Your task to perform on an android device: turn off notifications settings in the gmail app Image 0: 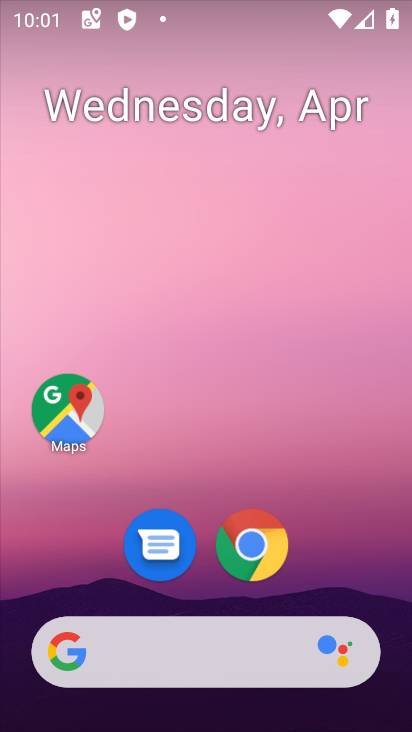
Step 0: drag from (396, 557) to (383, 0)
Your task to perform on an android device: turn off notifications settings in the gmail app Image 1: 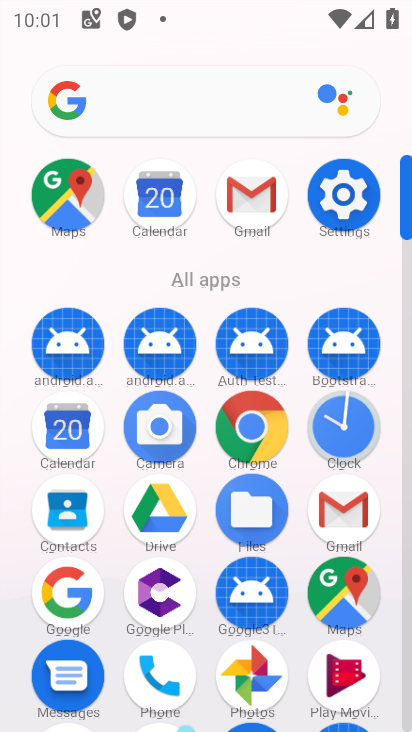
Step 1: click (248, 203)
Your task to perform on an android device: turn off notifications settings in the gmail app Image 2: 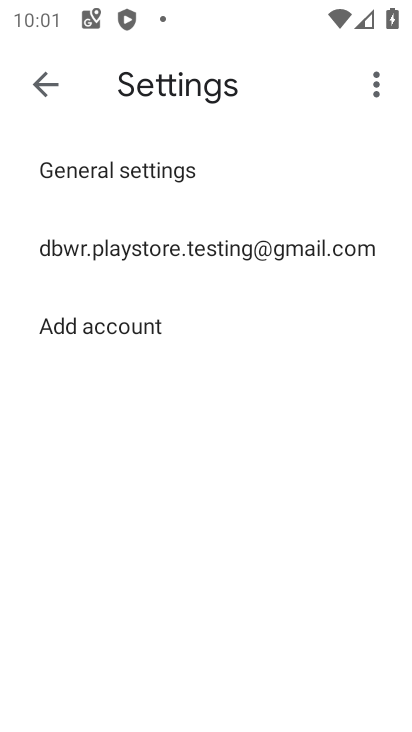
Step 2: click (98, 175)
Your task to perform on an android device: turn off notifications settings in the gmail app Image 3: 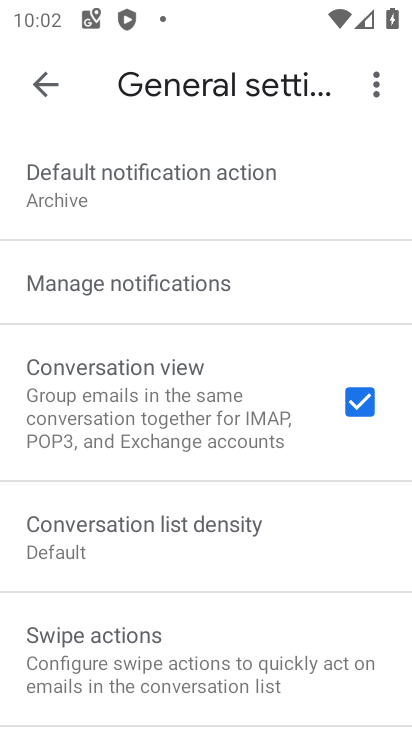
Step 3: click (113, 289)
Your task to perform on an android device: turn off notifications settings in the gmail app Image 4: 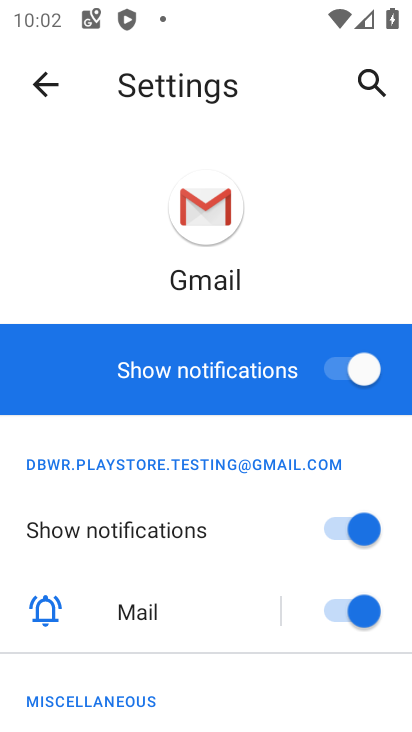
Step 4: click (359, 378)
Your task to perform on an android device: turn off notifications settings in the gmail app Image 5: 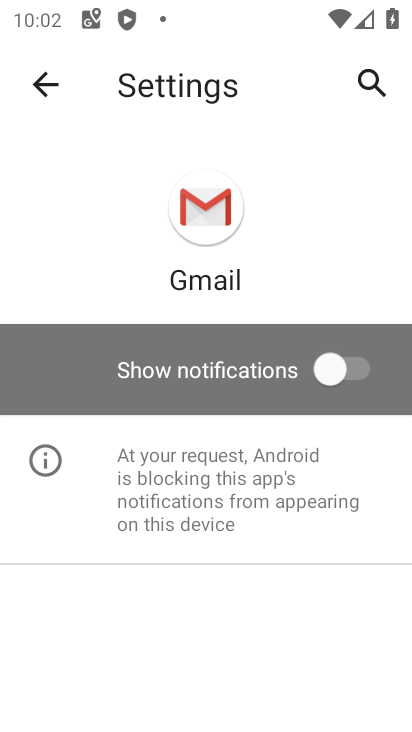
Step 5: task complete